Your task to perform on an android device: change the clock style Image 0: 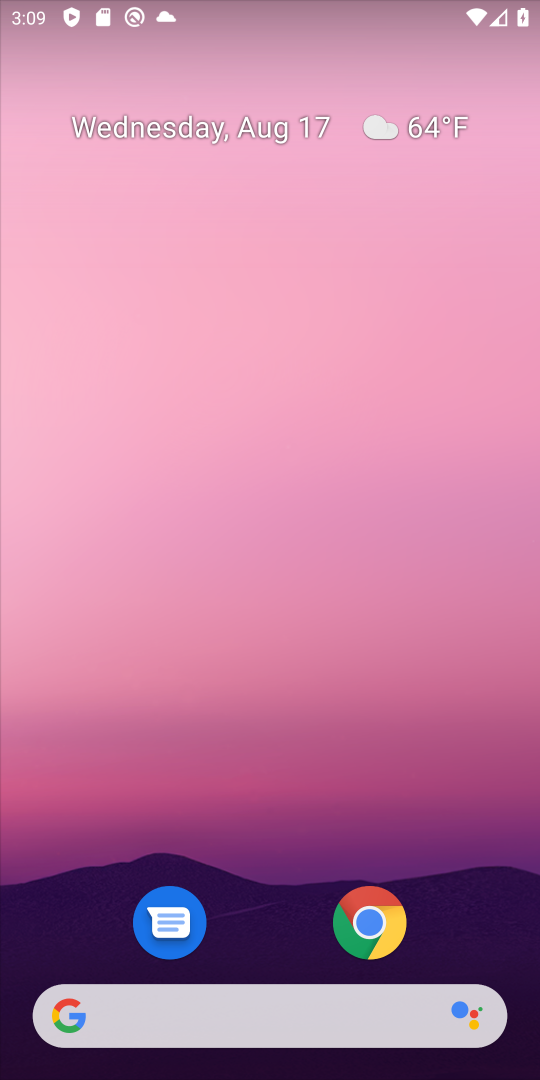
Step 0: press home button
Your task to perform on an android device: change the clock style Image 1: 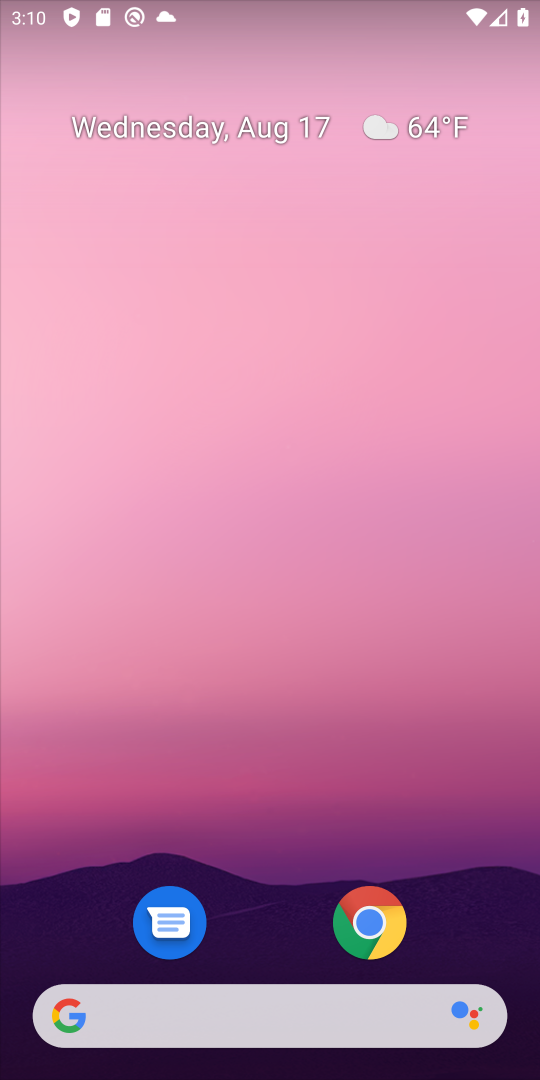
Step 1: drag from (58, 762) to (345, 58)
Your task to perform on an android device: change the clock style Image 2: 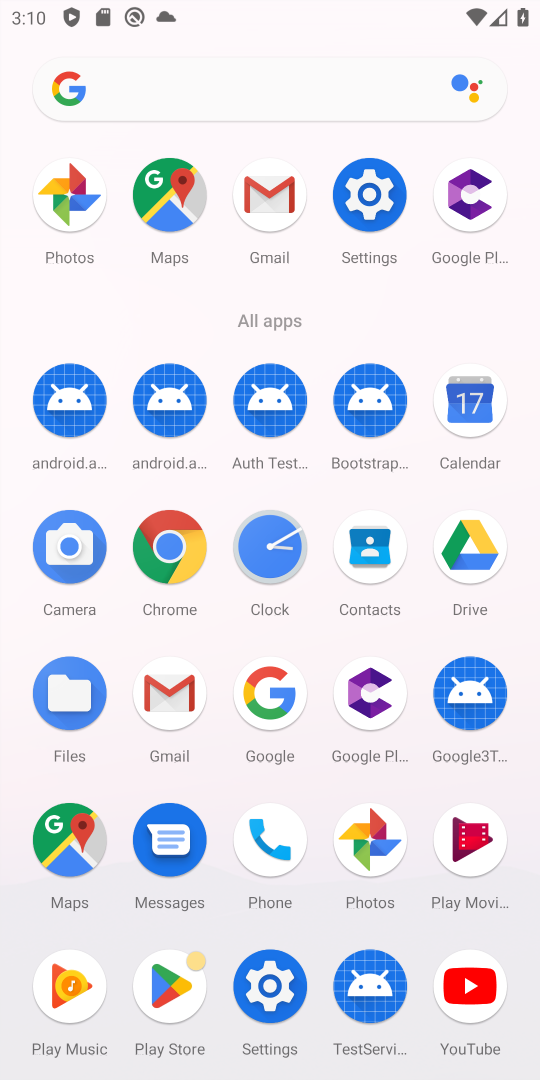
Step 2: click (263, 546)
Your task to perform on an android device: change the clock style Image 3: 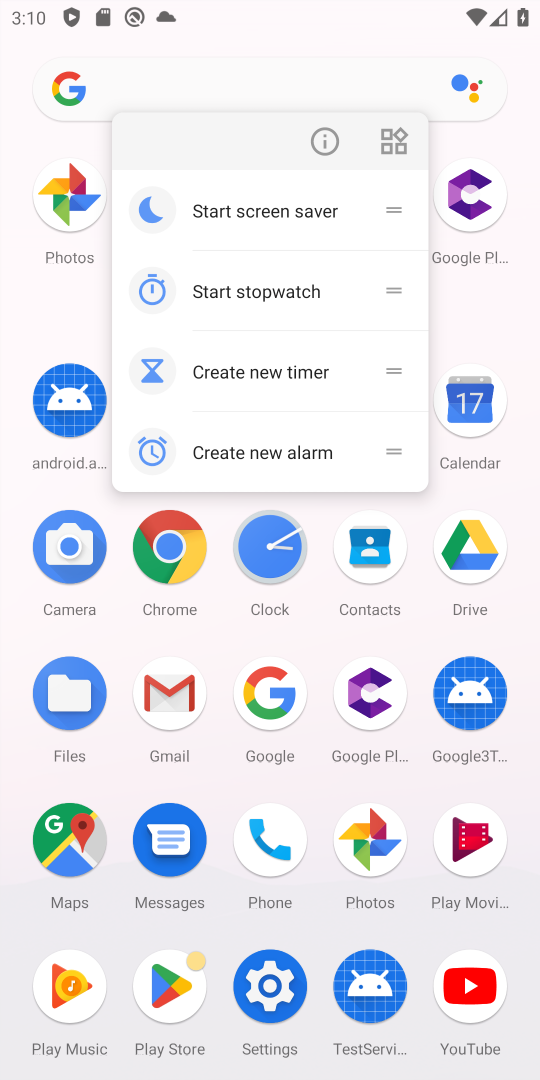
Step 3: click (263, 546)
Your task to perform on an android device: change the clock style Image 4: 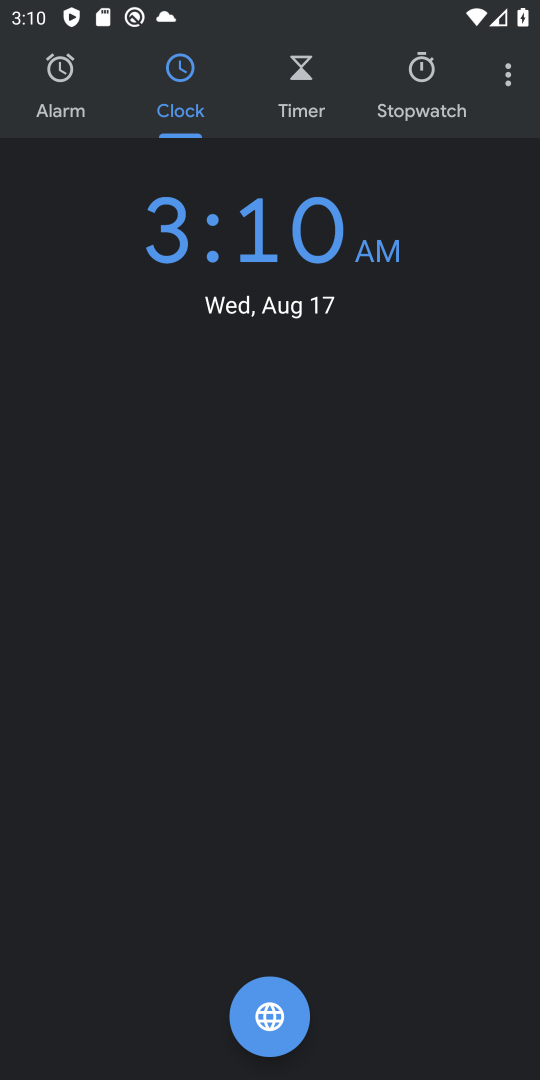
Step 4: click (503, 77)
Your task to perform on an android device: change the clock style Image 5: 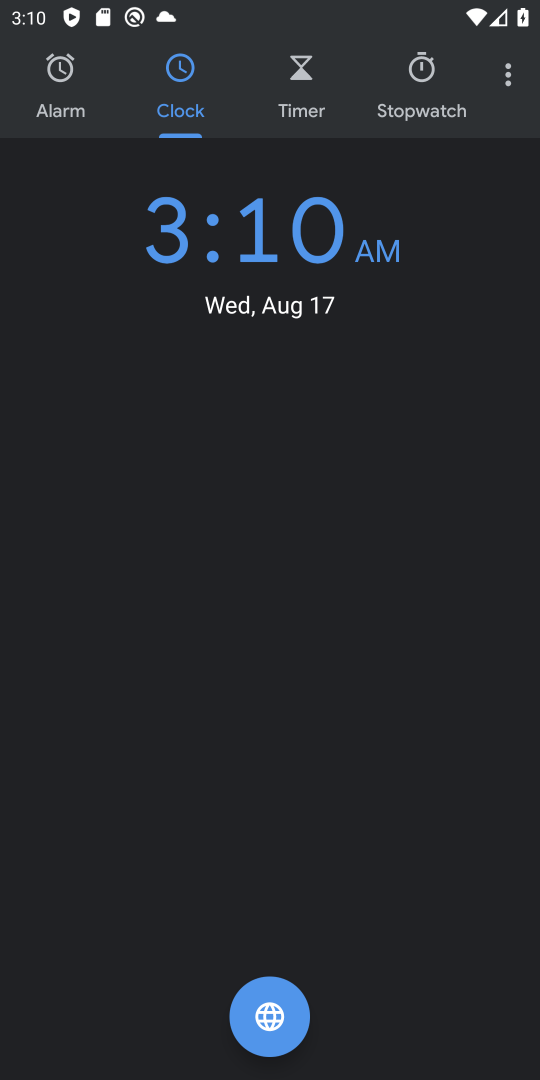
Step 5: click (509, 74)
Your task to perform on an android device: change the clock style Image 6: 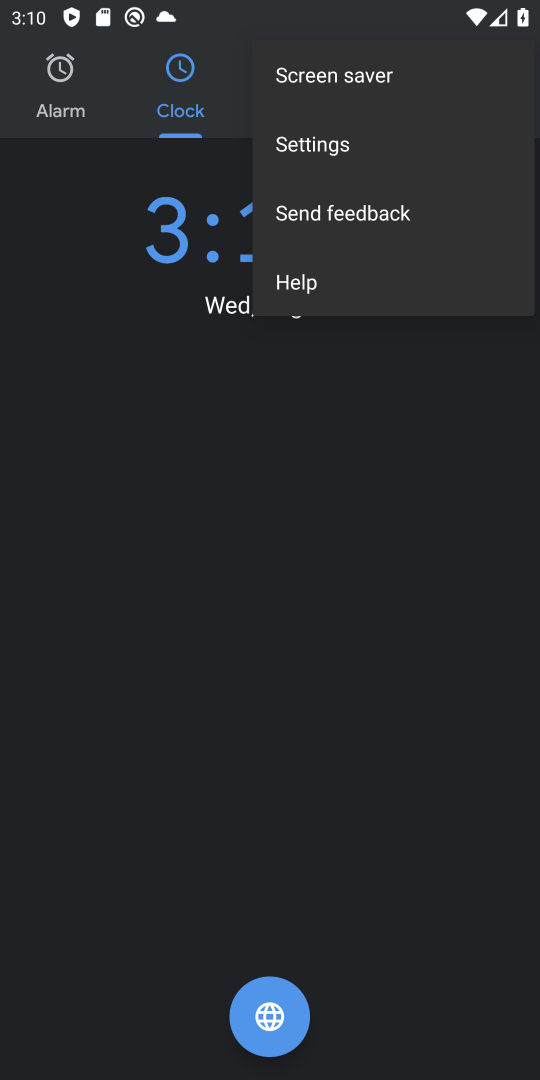
Step 6: click (343, 142)
Your task to perform on an android device: change the clock style Image 7: 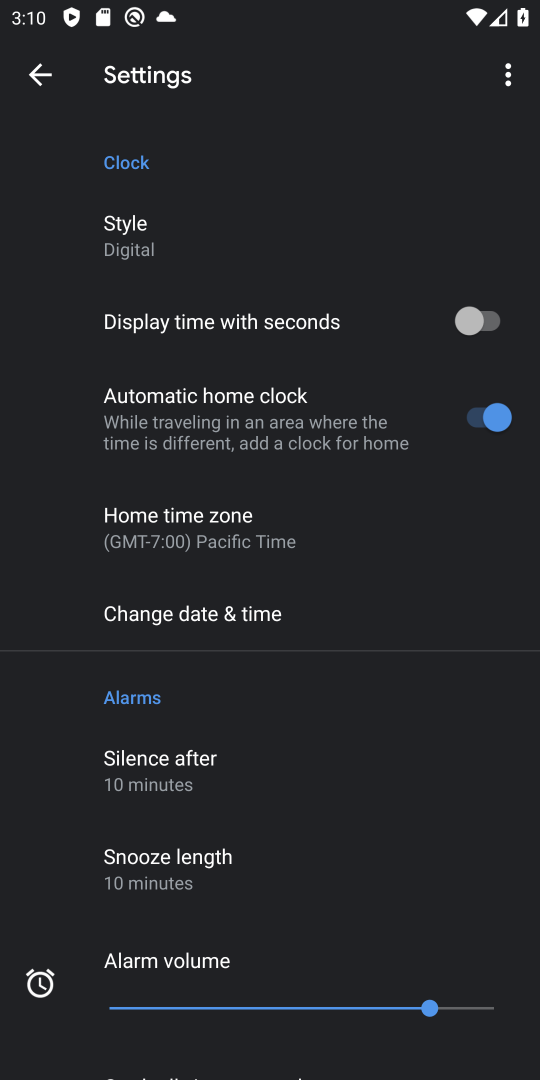
Step 7: click (147, 217)
Your task to perform on an android device: change the clock style Image 8: 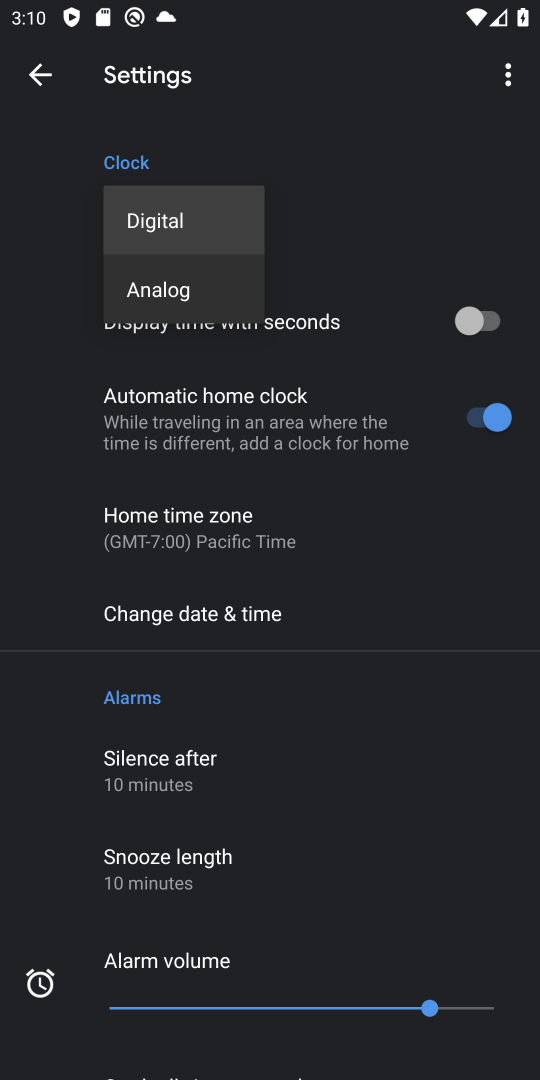
Step 8: click (155, 292)
Your task to perform on an android device: change the clock style Image 9: 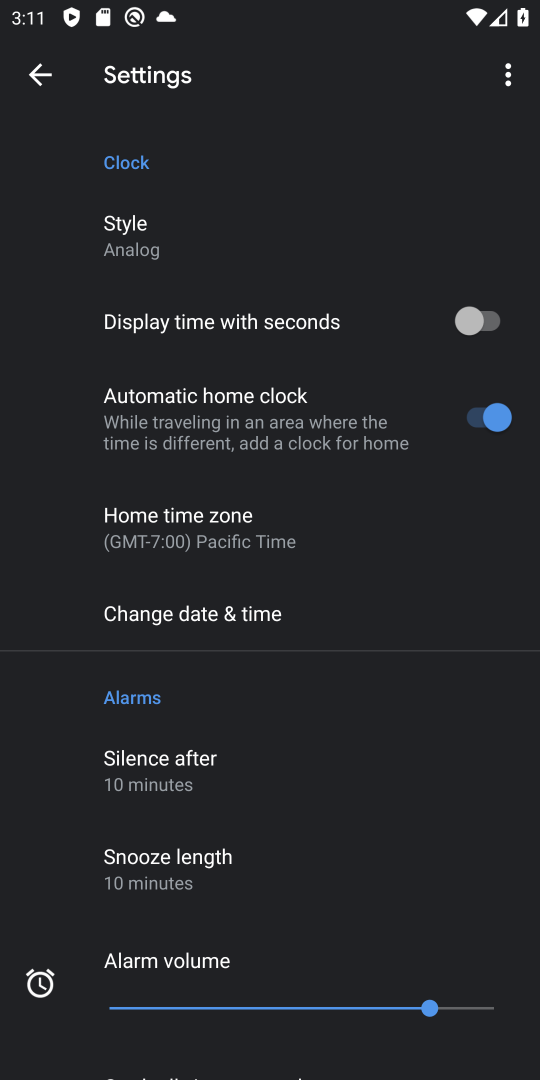
Step 9: task complete